Your task to perform on an android device: change the clock style Image 0: 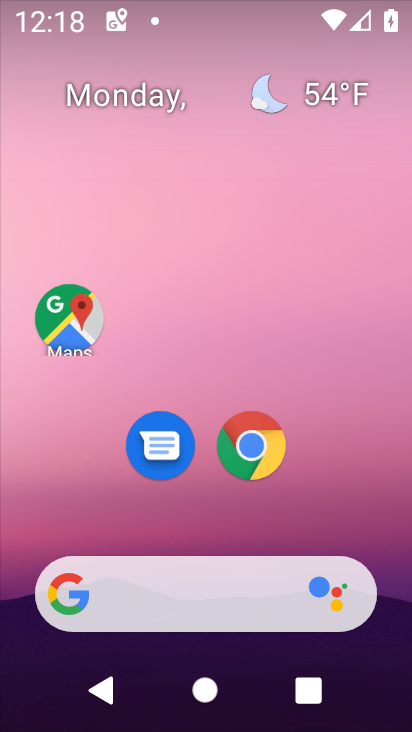
Step 0: drag from (377, 548) to (369, 95)
Your task to perform on an android device: change the clock style Image 1: 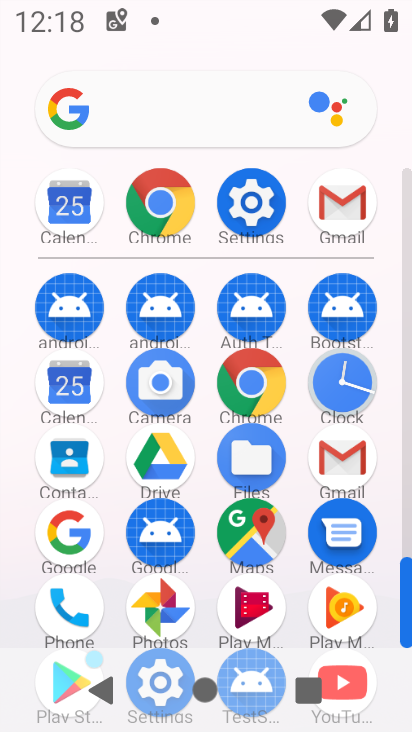
Step 1: click (335, 403)
Your task to perform on an android device: change the clock style Image 2: 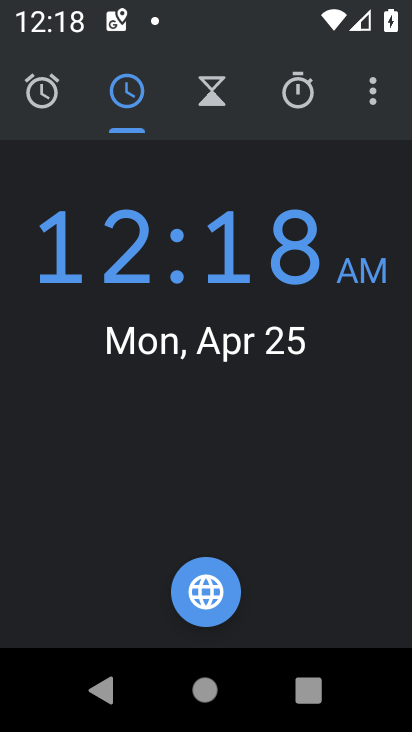
Step 2: click (378, 105)
Your task to perform on an android device: change the clock style Image 3: 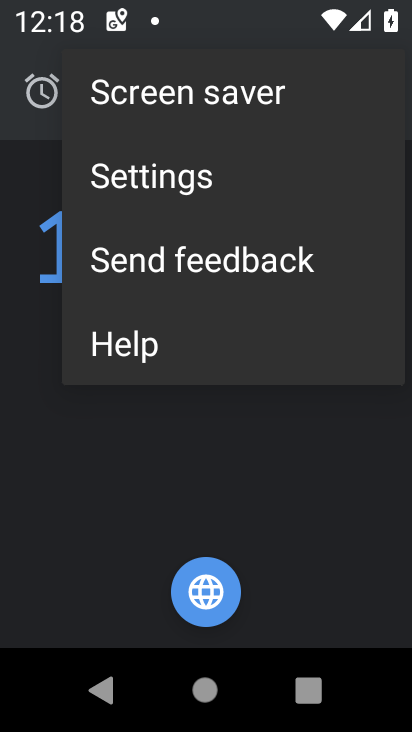
Step 3: click (177, 183)
Your task to perform on an android device: change the clock style Image 4: 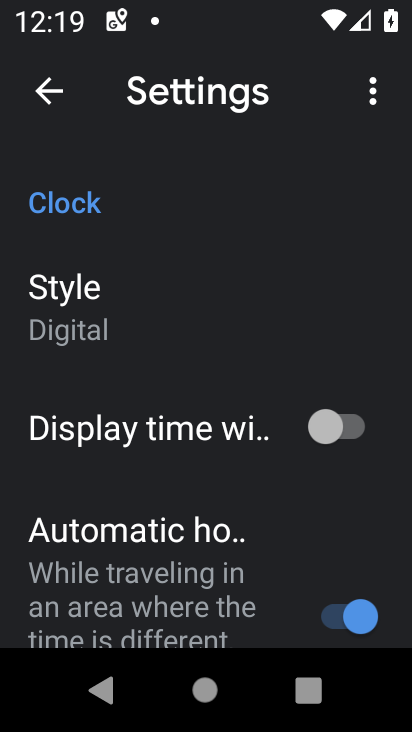
Step 4: click (129, 299)
Your task to perform on an android device: change the clock style Image 5: 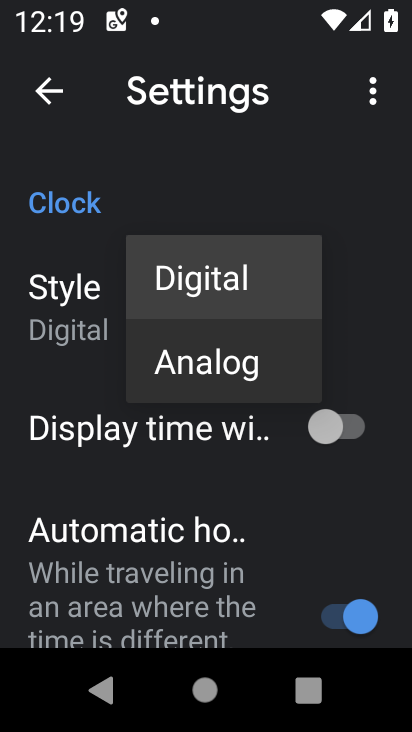
Step 5: click (175, 361)
Your task to perform on an android device: change the clock style Image 6: 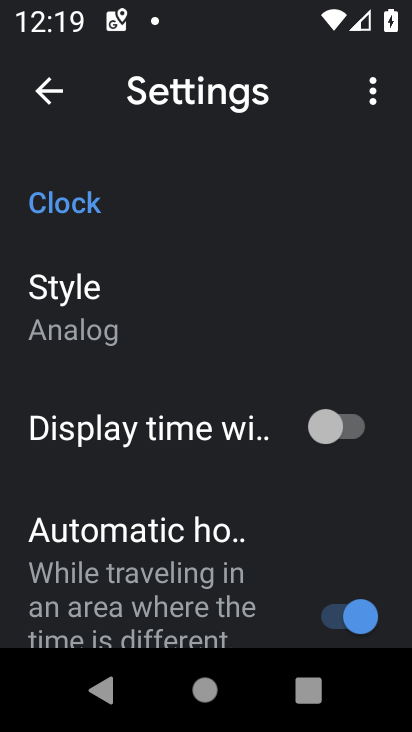
Step 6: task complete